Your task to perform on an android device: toggle data saver in the chrome app Image 0: 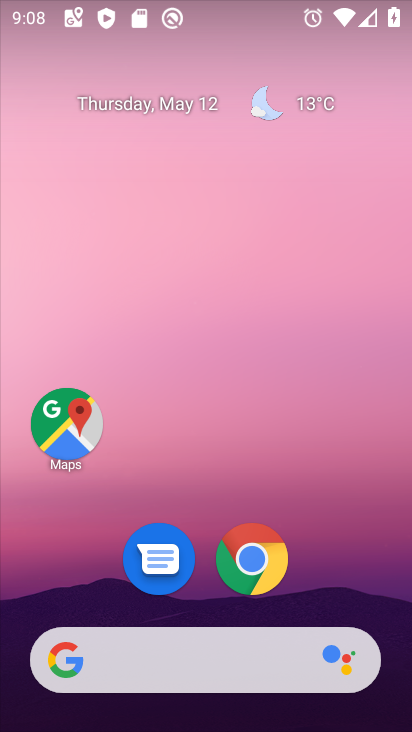
Step 0: click (249, 579)
Your task to perform on an android device: toggle data saver in the chrome app Image 1: 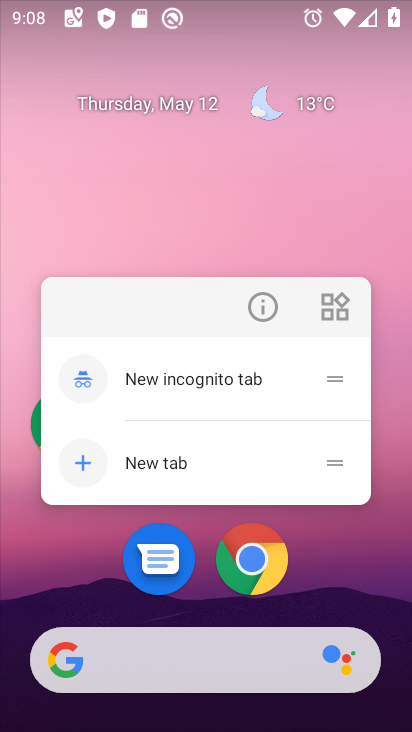
Step 1: click (249, 578)
Your task to perform on an android device: toggle data saver in the chrome app Image 2: 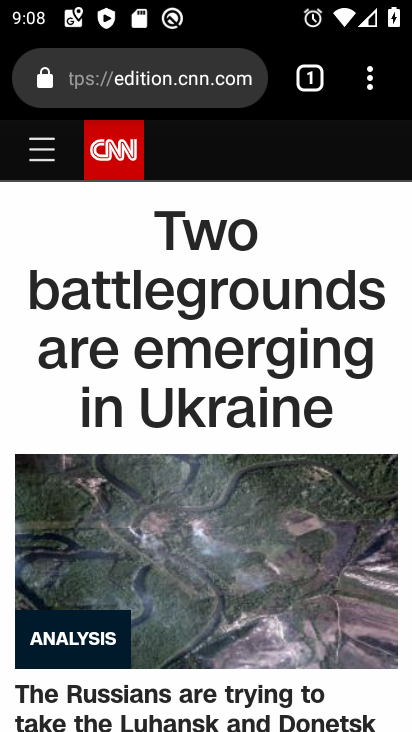
Step 2: drag from (401, 75) to (267, 626)
Your task to perform on an android device: toggle data saver in the chrome app Image 3: 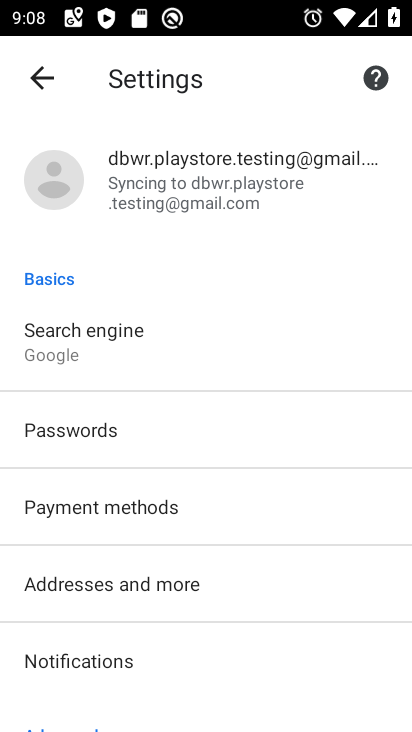
Step 3: drag from (242, 656) to (303, 285)
Your task to perform on an android device: toggle data saver in the chrome app Image 4: 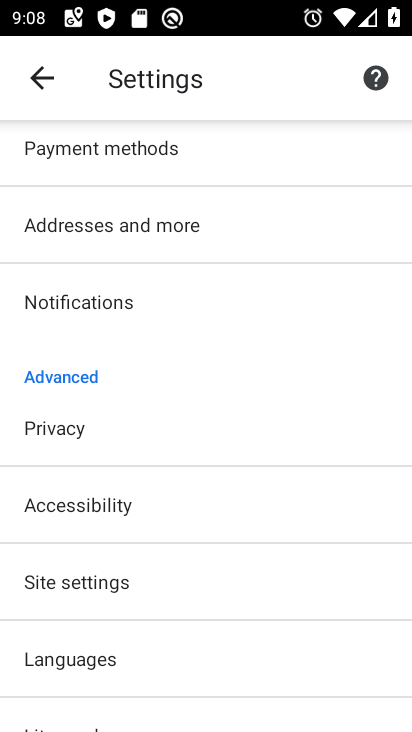
Step 4: drag from (152, 606) to (240, 294)
Your task to perform on an android device: toggle data saver in the chrome app Image 5: 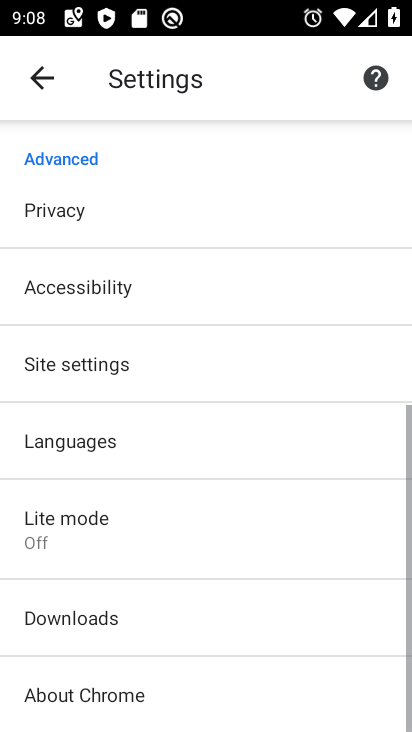
Step 5: click (148, 549)
Your task to perform on an android device: toggle data saver in the chrome app Image 6: 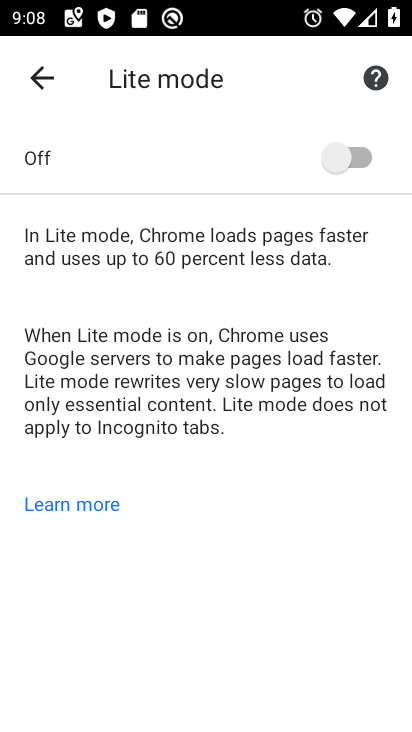
Step 6: click (388, 135)
Your task to perform on an android device: toggle data saver in the chrome app Image 7: 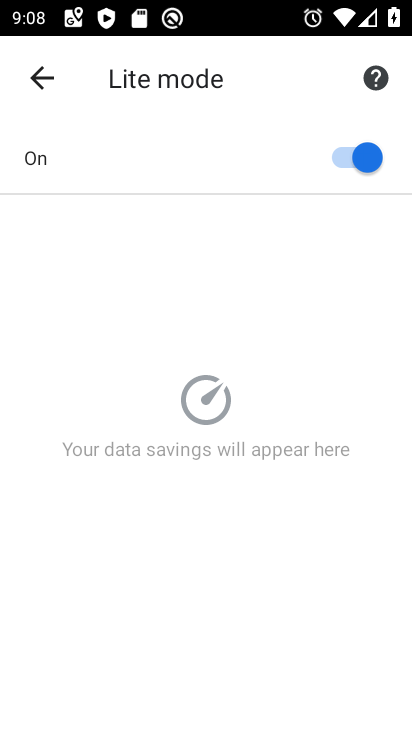
Step 7: task complete